Your task to perform on an android device: Go to internet settings Image 0: 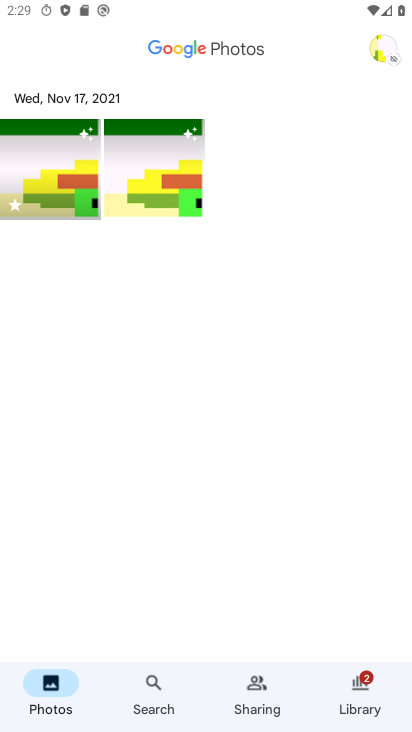
Step 0: press home button
Your task to perform on an android device: Go to internet settings Image 1: 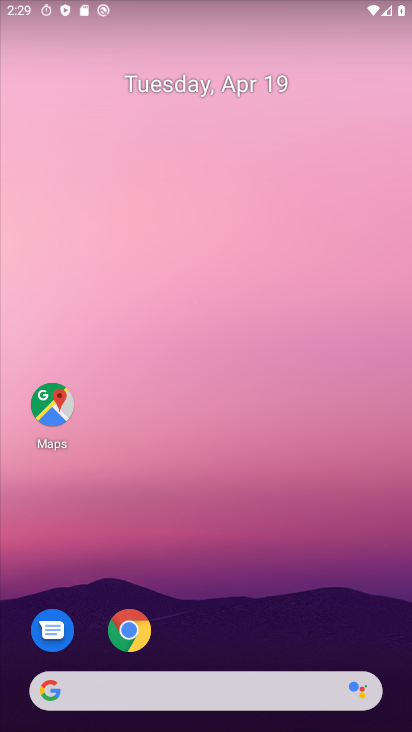
Step 1: drag from (297, 604) to (279, 104)
Your task to perform on an android device: Go to internet settings Image 2: 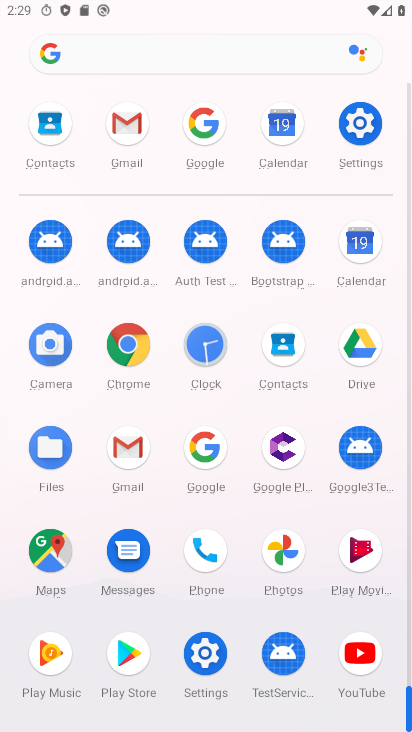
Step 2: click (362, 130)
Your task to perform on an android device: Go to internet settings Image 3: 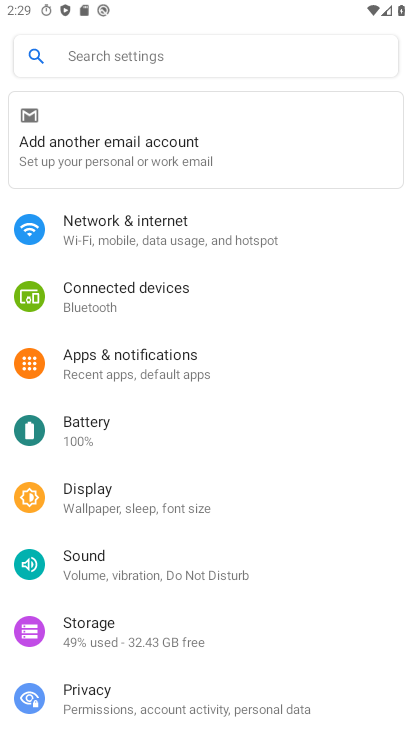
Step 3: click (150, 232)
Your task to perform on an android device: Go to internet settings Image 4: 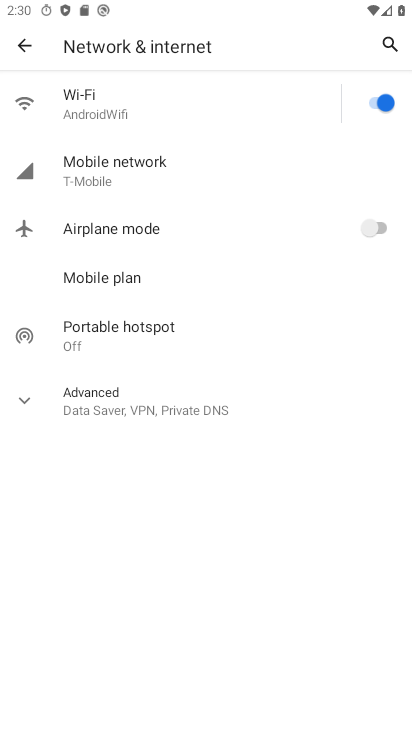
Step 4: task complete